Your task to perform on an android device: Go to notification settings Image 0: 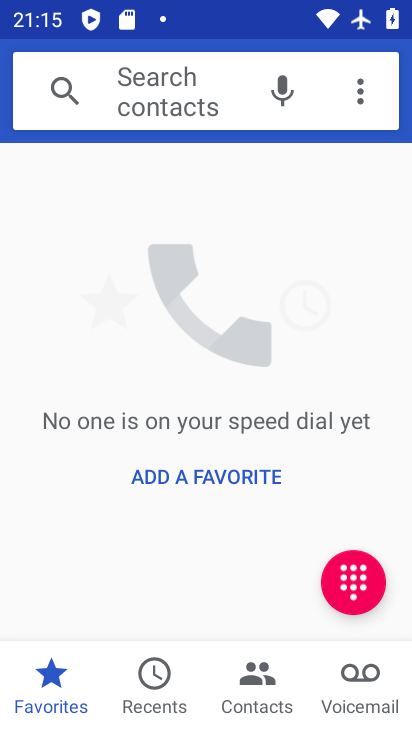
Step 0: press home button
Your task to perform on an android device: Go to notification settings Image 1: 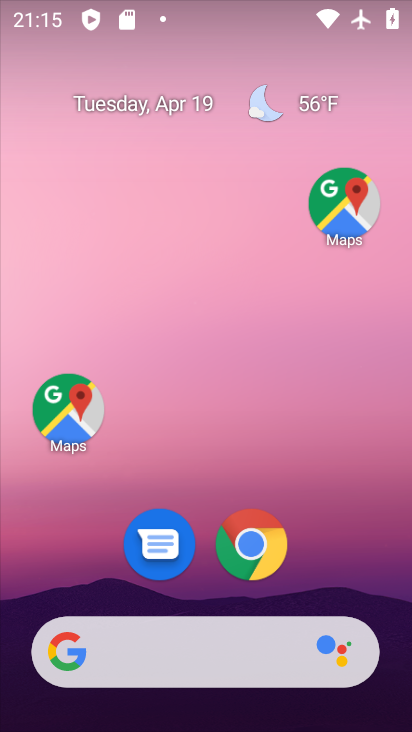
Step 1: drag from (135, 650) to (360, 7)
Your task to perform on an android device: Go to notification settings Image 2: 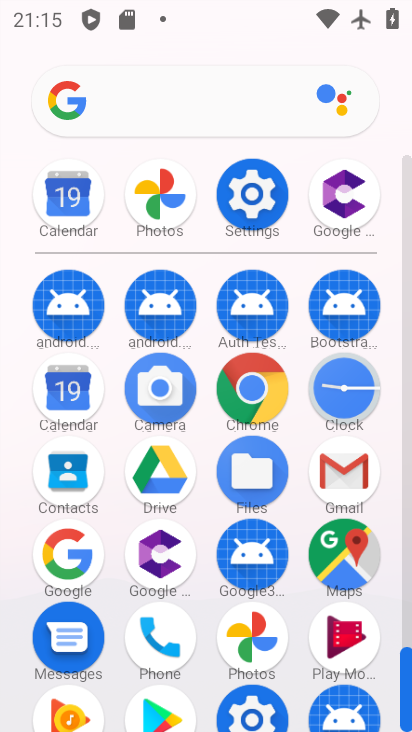
Step 2: click (245, 199)
Your task to perform on an android device: Go to notification settings Image 3: 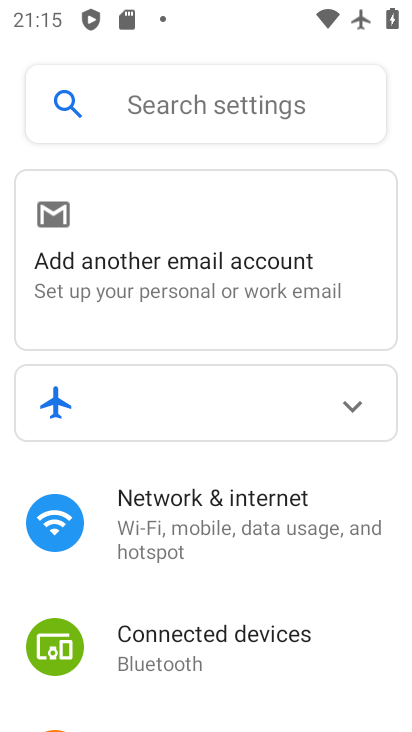
Step 3: drag from (222, 581) to (382, 90)
Your task to perform on an android device: Go to notification settings Image 4: 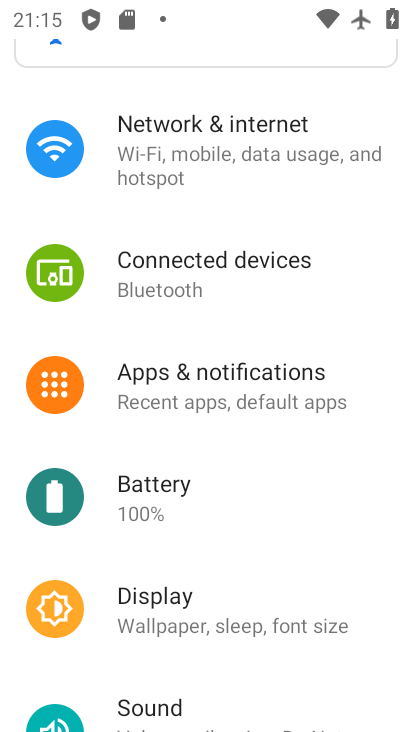
Step 4: click (265, 382)
Your task to perform on an android device: Go to notification settings Image 5: 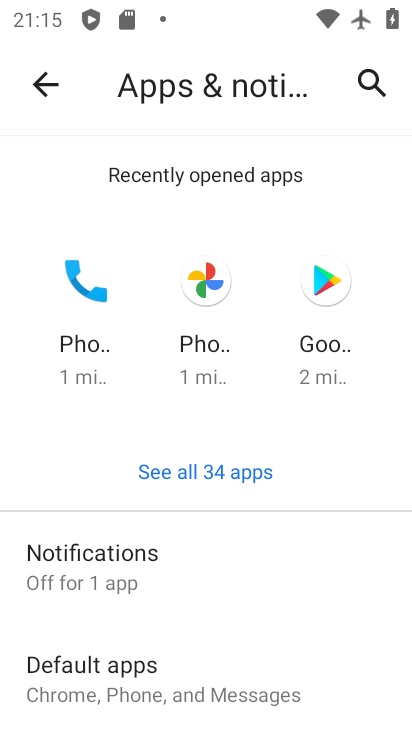
Step 5: click (117, 546)
Your task to perform on an android device: Go to notification settings Image 6: 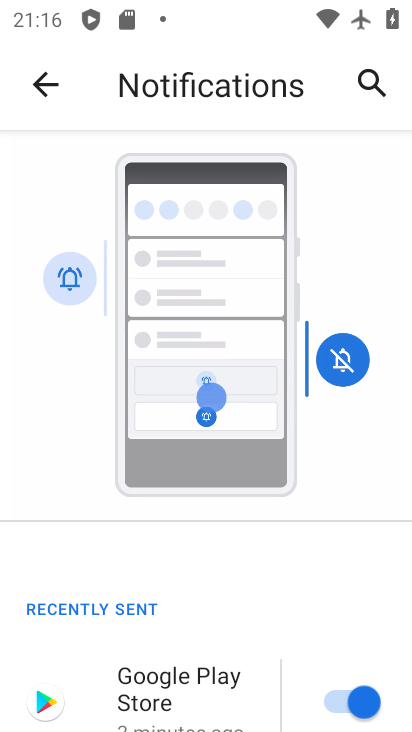
Step 6: drag from (85, 667) to (242, 162)
Your task to perform on an android device: Go to notification settings Image 7: 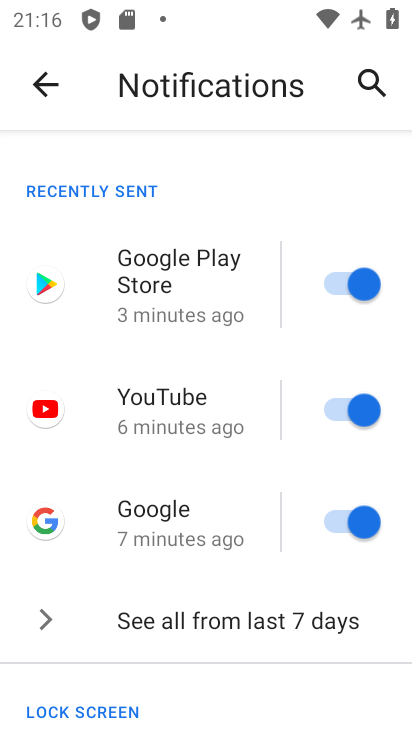
Step 7: drag from (165, 594) to (346, 140)
Your task to perform on an android device: Go to notification settings Image 8: 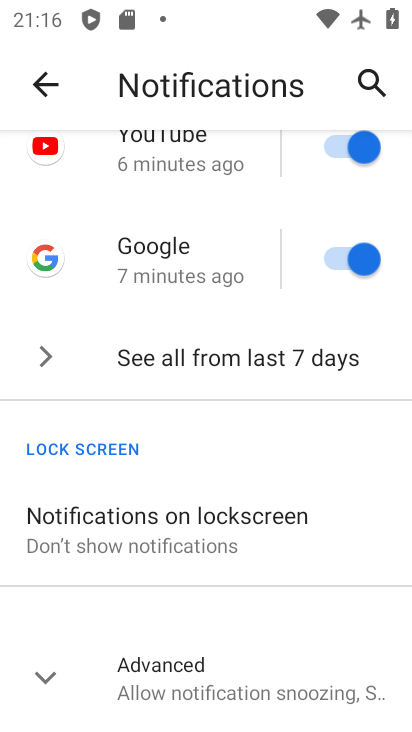
Step 8: click (66, 665)
Your task to perform on an android device: Go to notification settings Image 9: 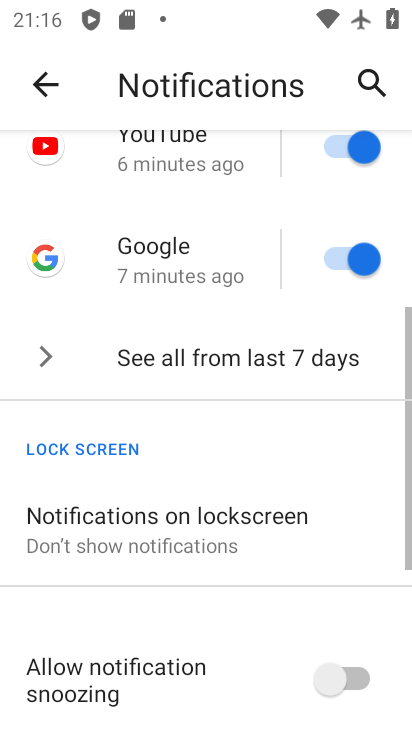
Step 9: task complete